Your task to perform on an android device: What's the weather? Image 0: 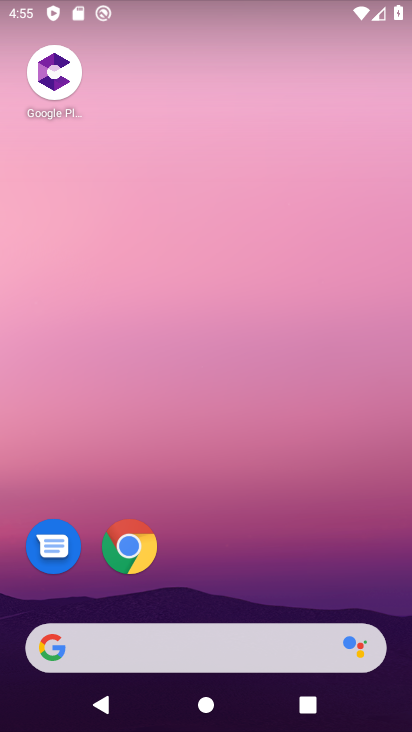
Step 0: click (147, 548)
Your task to perform on an android device: What's the weather? Image 1: 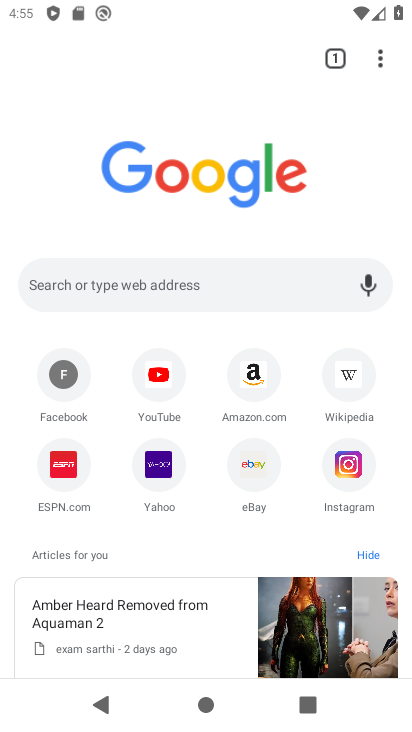
Step 1: click (240, 290)
Your task to perform on an android device: What's the weather? Image 2: 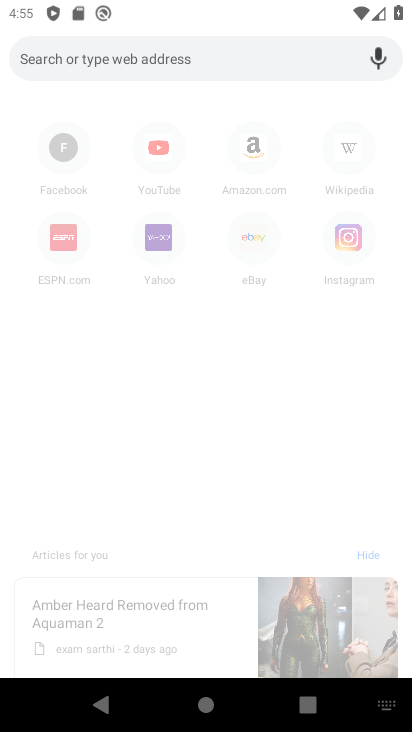
Step 2: type "What's the weather?"
Your task to perform on an android device: What's the weather? Image 3: 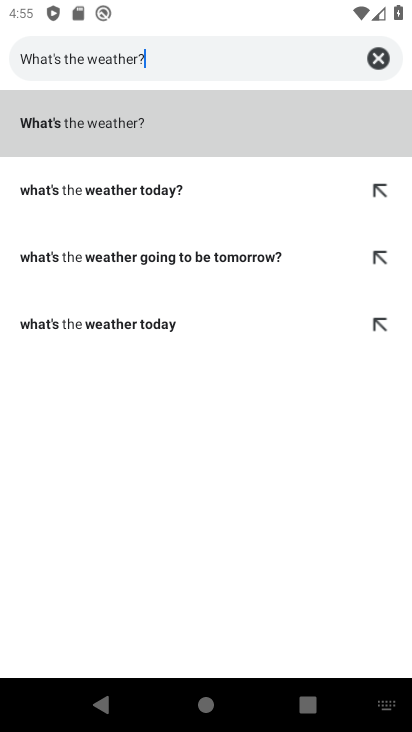
Step 3: click (48, 119)
Your task to perform on an android device: What's the weather? Image 4: 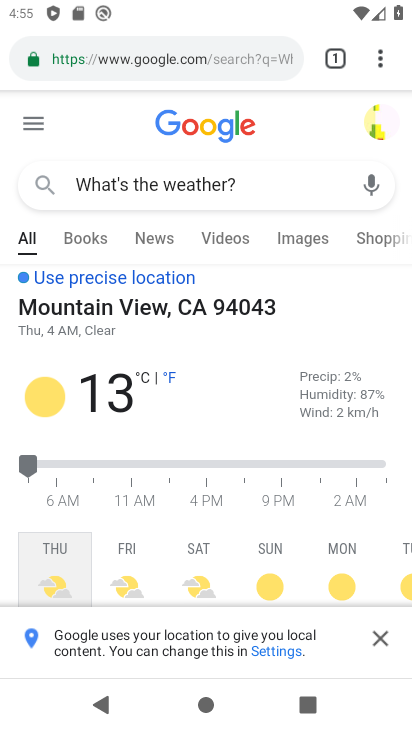
Step 4: task complete